Your task to perform on an android device: turn on the 24-hour format for clock Image 0: 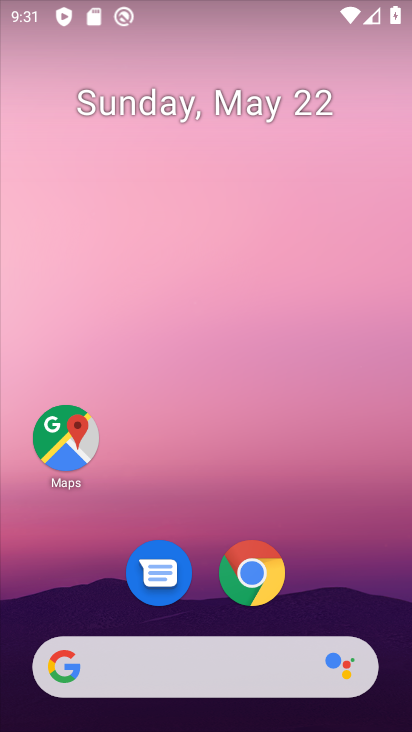
Step 0: drag from (391, 652) to (323, 22)
Your task to perform on an android device: turn on the 24-hour format for clock Image 1: 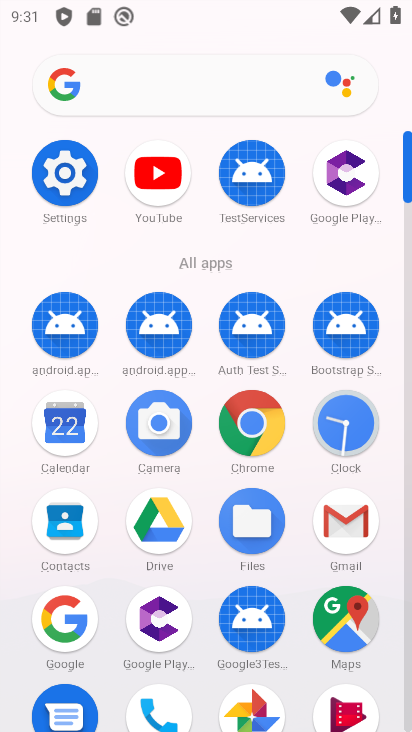
Step 1: click (351, 424)
Your task to perform on an android device: turn on the 24-hour format for clock Image 2: 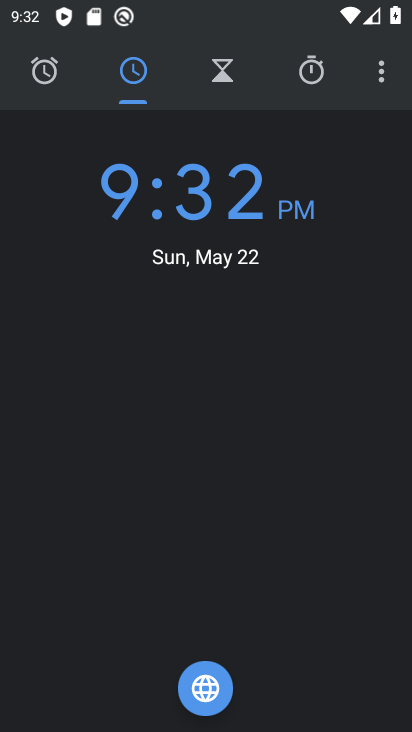
Step 2: click (390, 77)
Your task to perform on an android device: turn on the 24-hour format for clock Image 3: 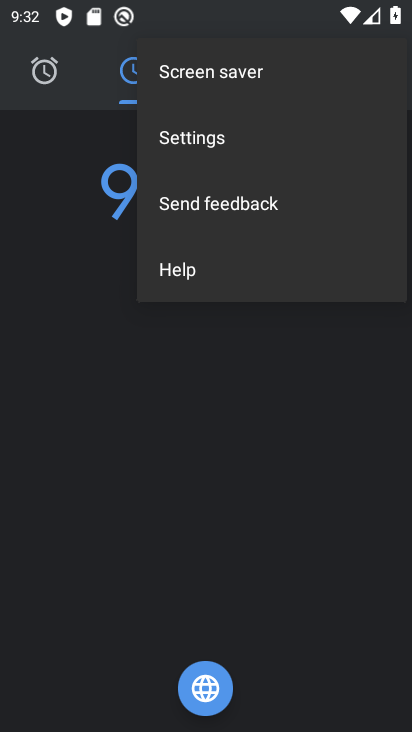
Step 3: click (193, 147)
Your task to perform on an android device: turn on the 24-hour format for clock Image 4: 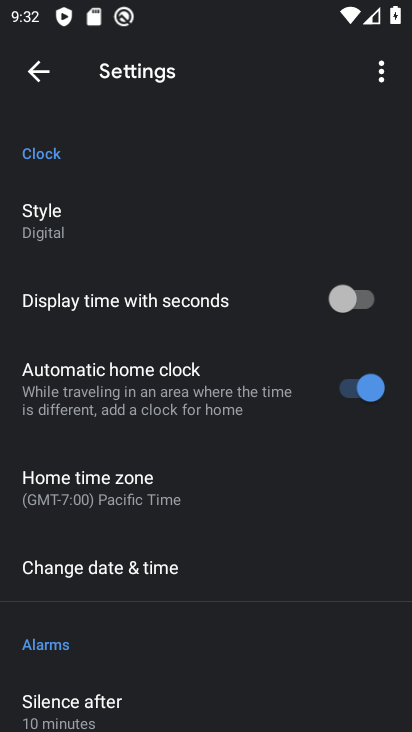
Step 4: click (147, 559)
Your task to perform on an android device: turn on the 24-hour format for clock Image 5: 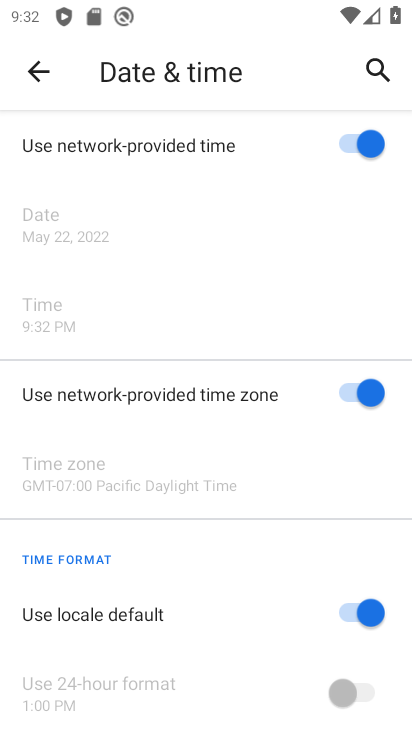
Step 5: drag from (168, 517) to (308, 185)
Your task to perform on an android device: turn on the 24-hour format for clock Image 6: 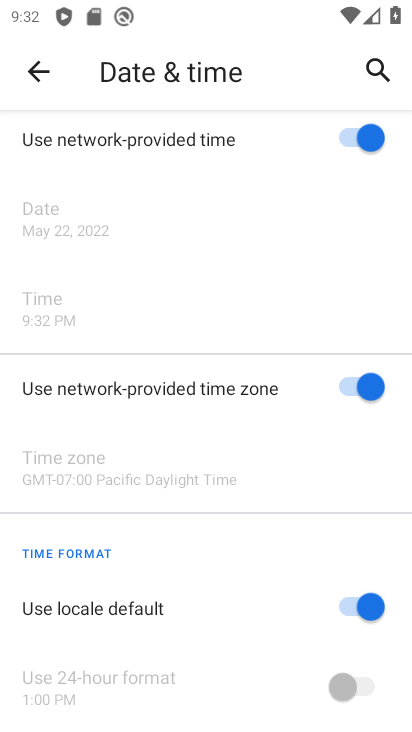
Step 6: click (355, 613)
Your task to perform on an android device: turn on the 24-hour format for clock Image 7: 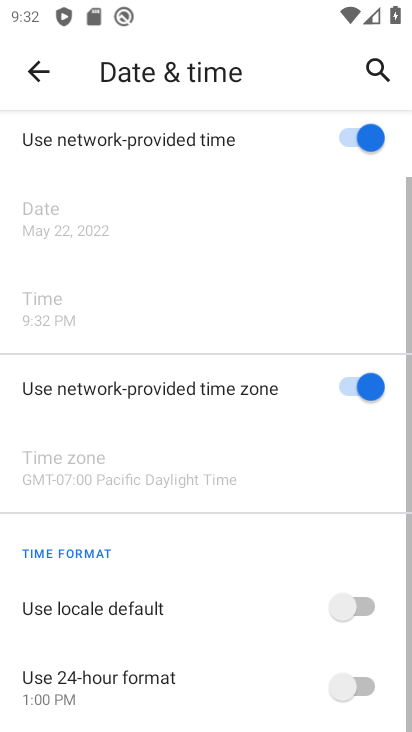
Step 7: click (357, 691)
Your task to perform on an android device: turn on the 24-hour format for clock Image 8: 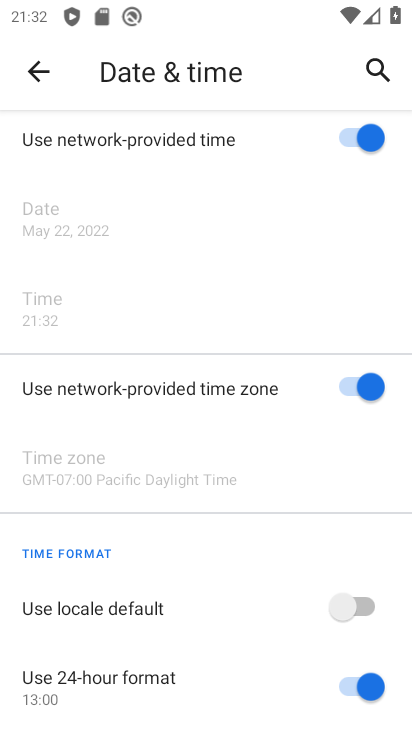
Step 8: task complete